Your task to perform on an android device: set an alarm Image 0: 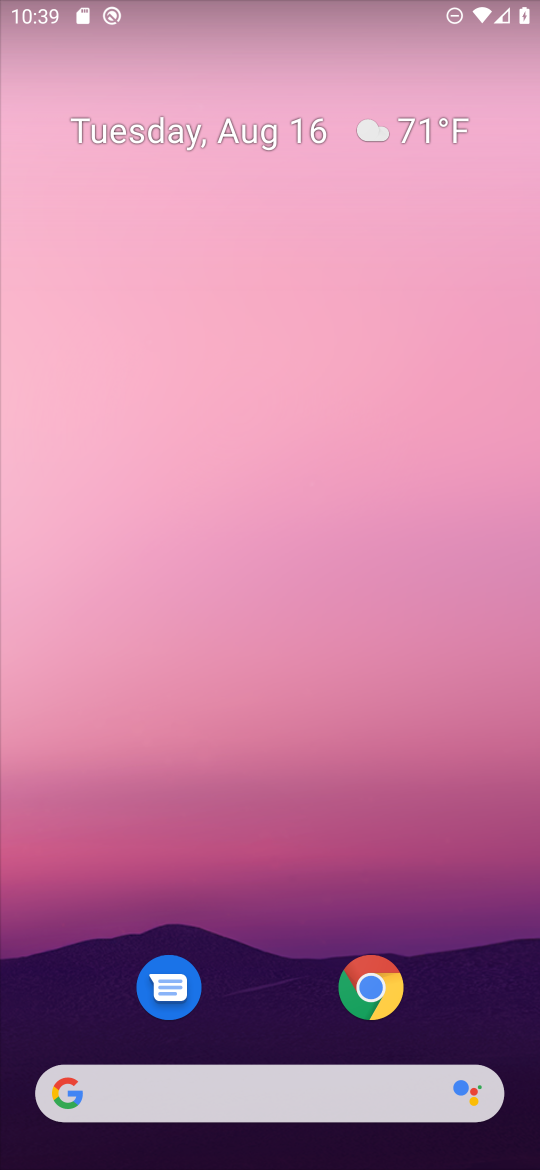
Step 0: drag from (22, 1125) to (353, 133)
Your task to perform on an android device: set an alarm Image 1: 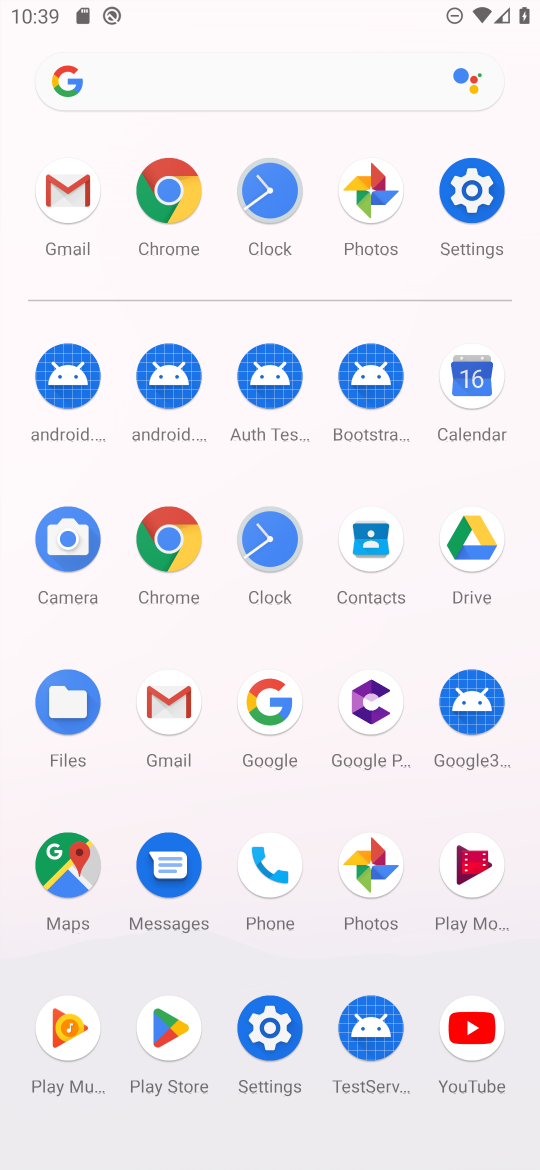
Step 1: click (279, 545)
Your task to perform on an android device: set an alarm Image 2: 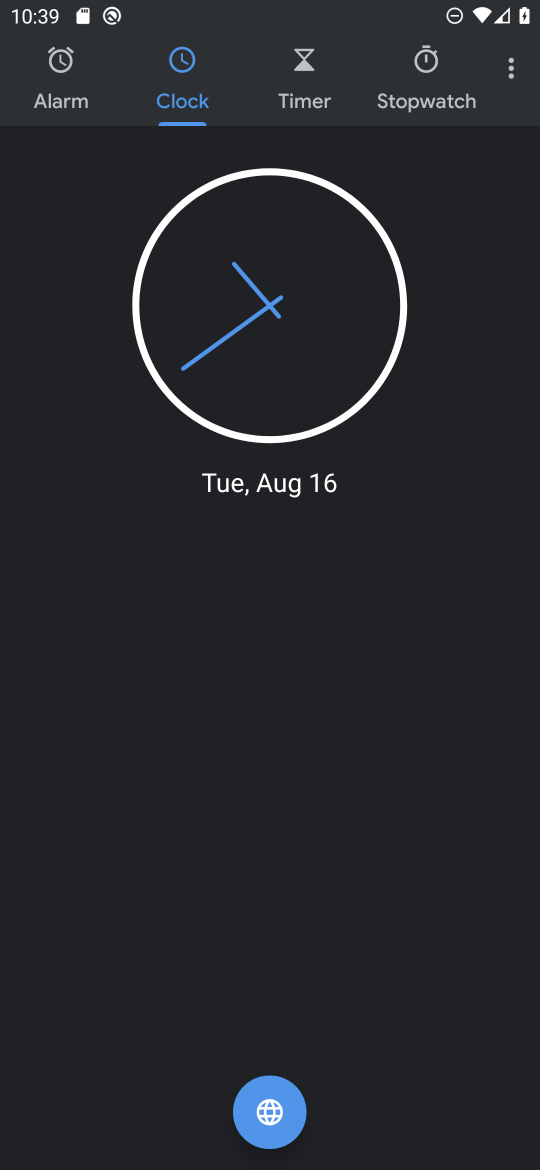
Step 2: click (44, 55)
Your task to perform on an android device: set an alarm Image 3: 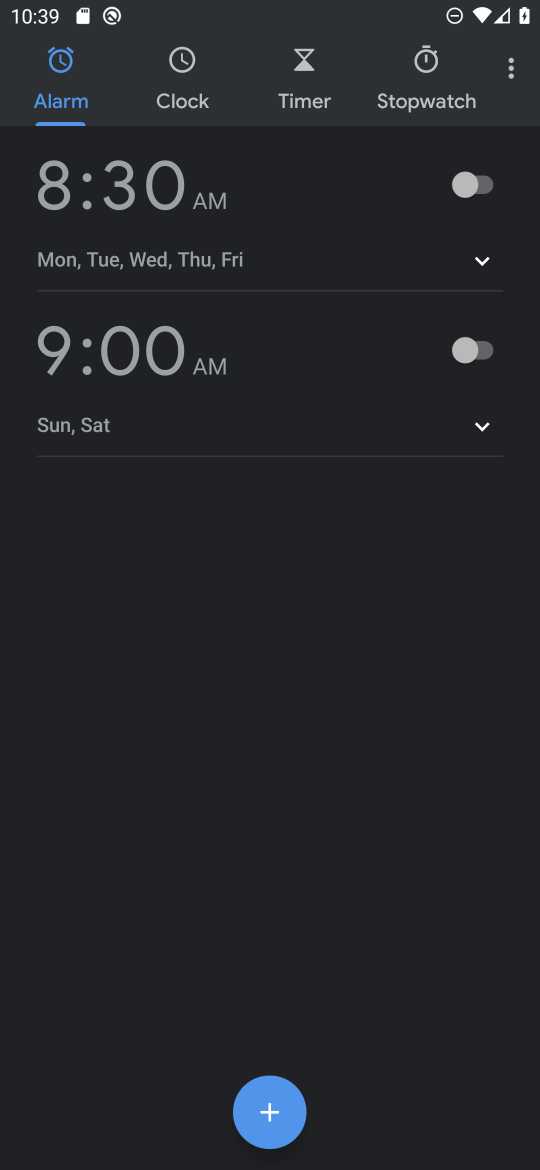
Step 3: click (459, 185)
Your task to perform on an android device: set an alarm Image 4: 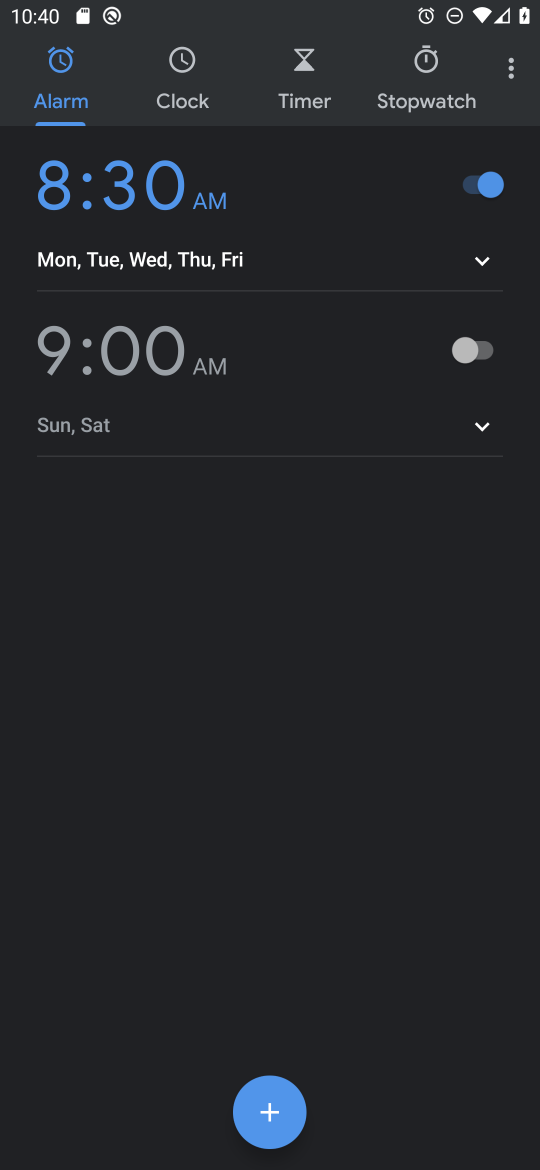
Step 4: task complete